Your task to perform on an android device: Open Google Maps Image 0: 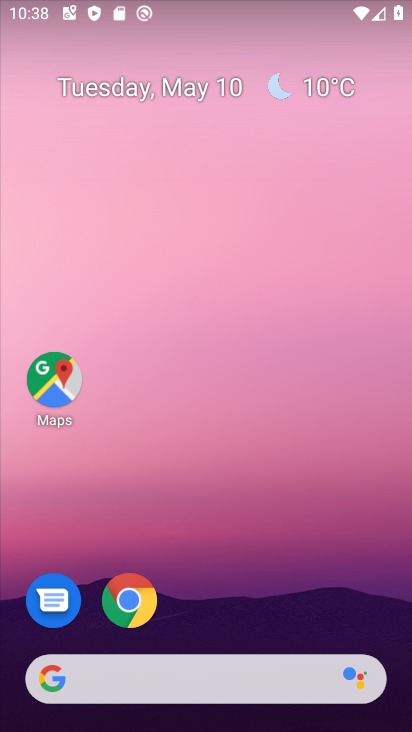
Step 0: click (57, 378)
Your task to perform on an android device: Open Google Maps Image 1: 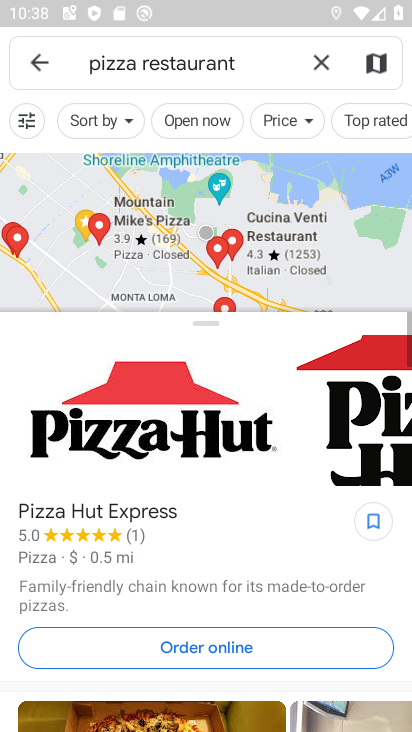
Step 1: task complete